Your task to perform on an android device: change the clock style Image 0: 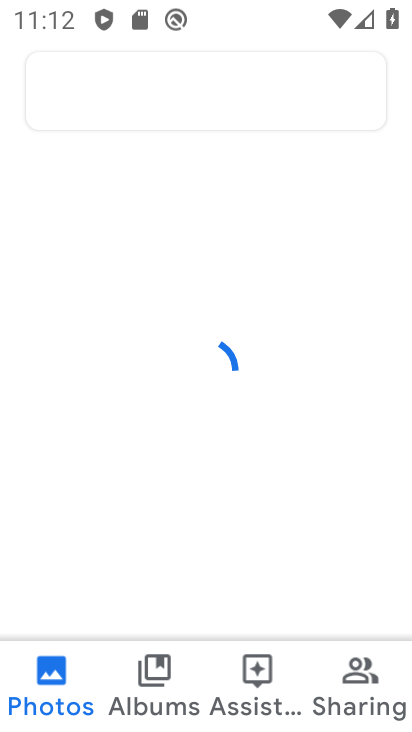
Step 0: press home button
Your task to perform on an android device: change the clock style Image 1: 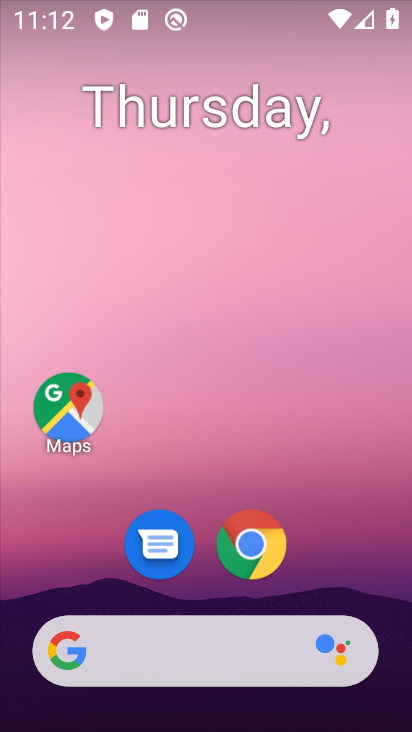
Step 1: drag from (238, 616) to (324, 0)
Your task to perform on an android device: change the clock style Image 2: 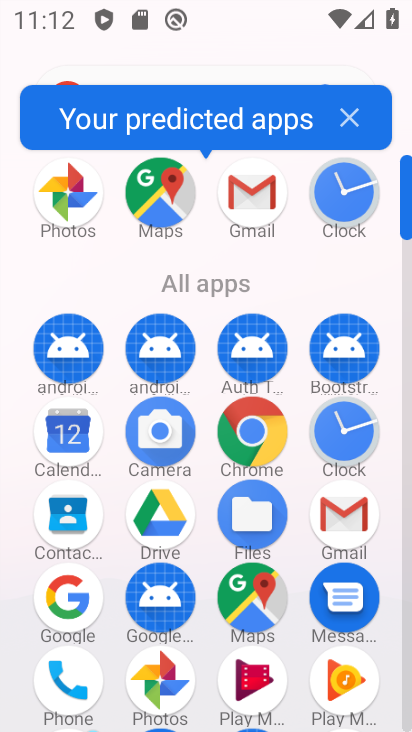
Step 2: click (351, 442)
Your task to perform on an android device: change the clock style Image 3: 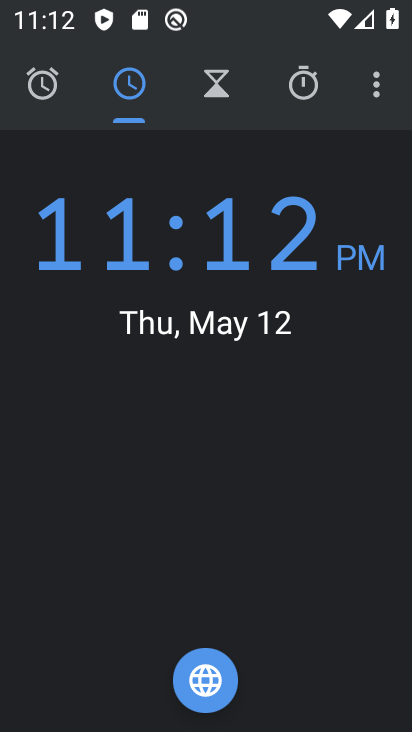
Step 3: click (363, 85)
Your task to perform on an android device: change the clock style Image 4: 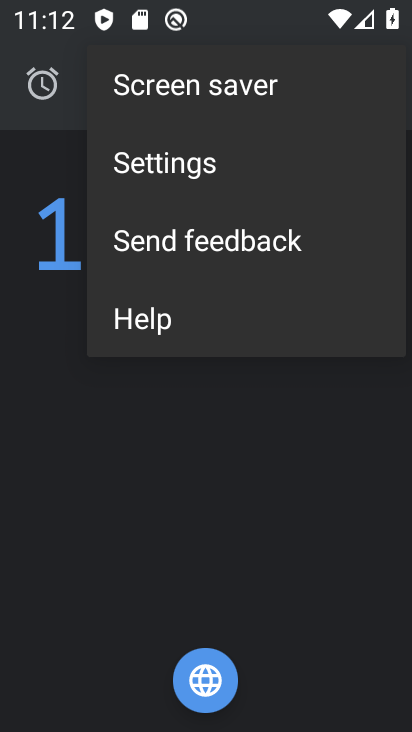
Step 4: click (182, 159)
Your task to perform on an android device: change the clock style Image 5: 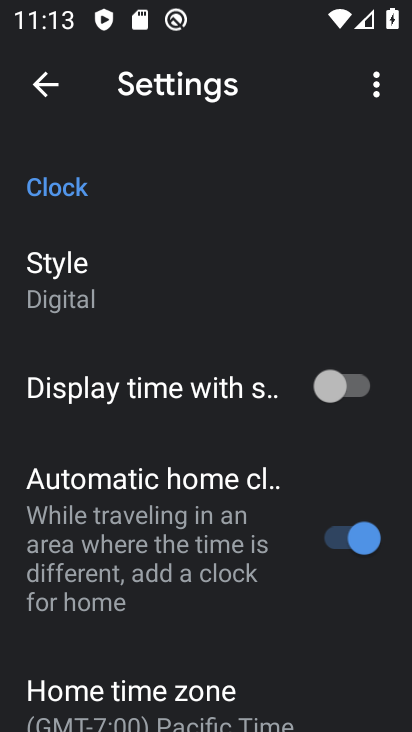
Step 5: click (90, 298)
Your task to perform on an android device: change the clock style Image 6: 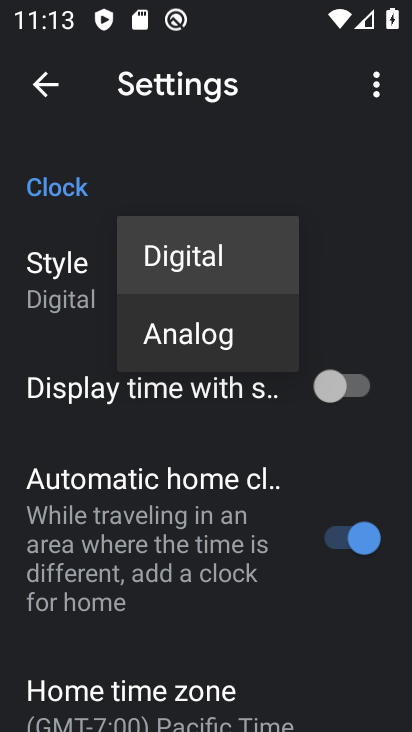
Step 6: click (182, 343)
Your task to perform on an android device: change the clock style Image 7: 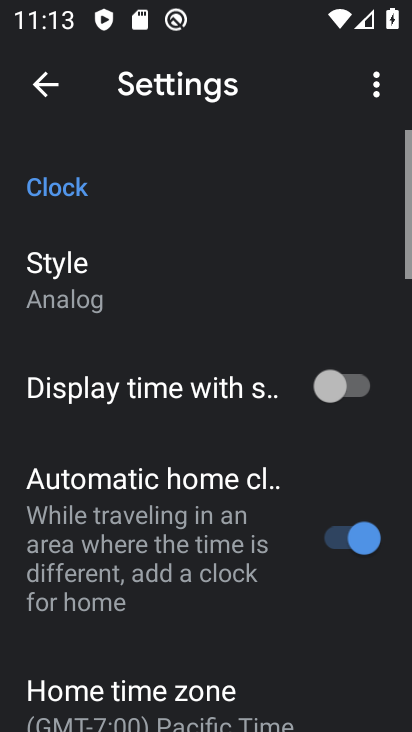
Step 7: task complete